Your task to perform on an android device: Search for hotels in Miami Image 0: 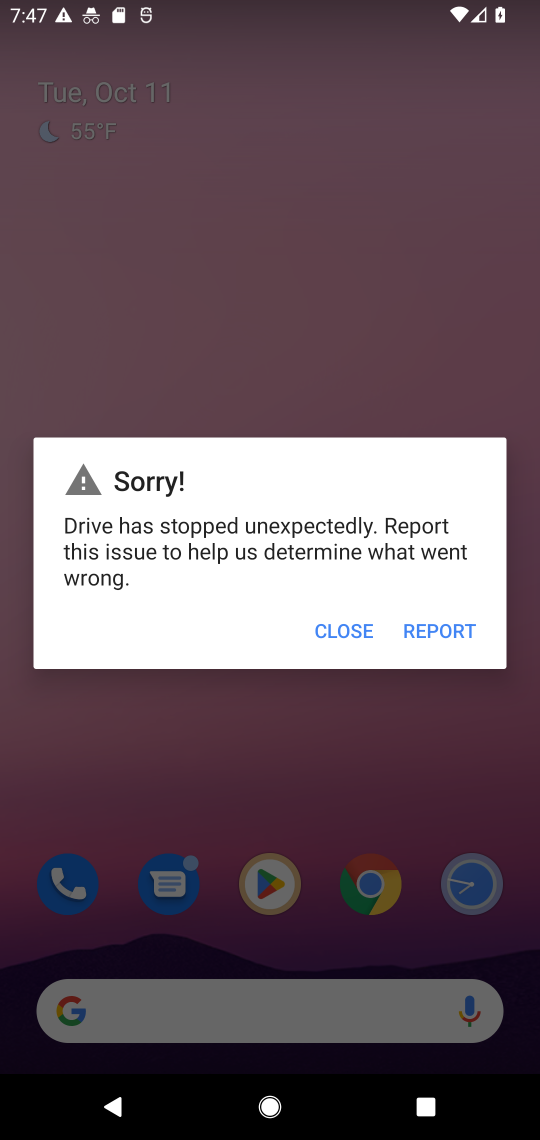
Step 0: press home button
Your task to perform on an android device: Search for hotels in Miami Image 1: 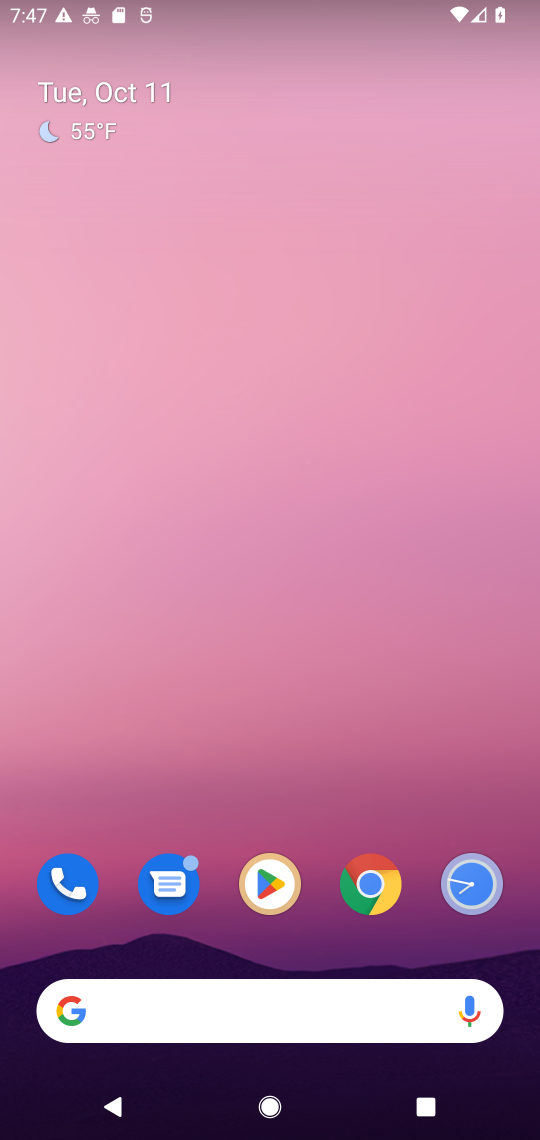
Step 1: drag from (234, 949) to (215, 11)
Your task to perform on an android device: Search for hotels in Miami Image 2: 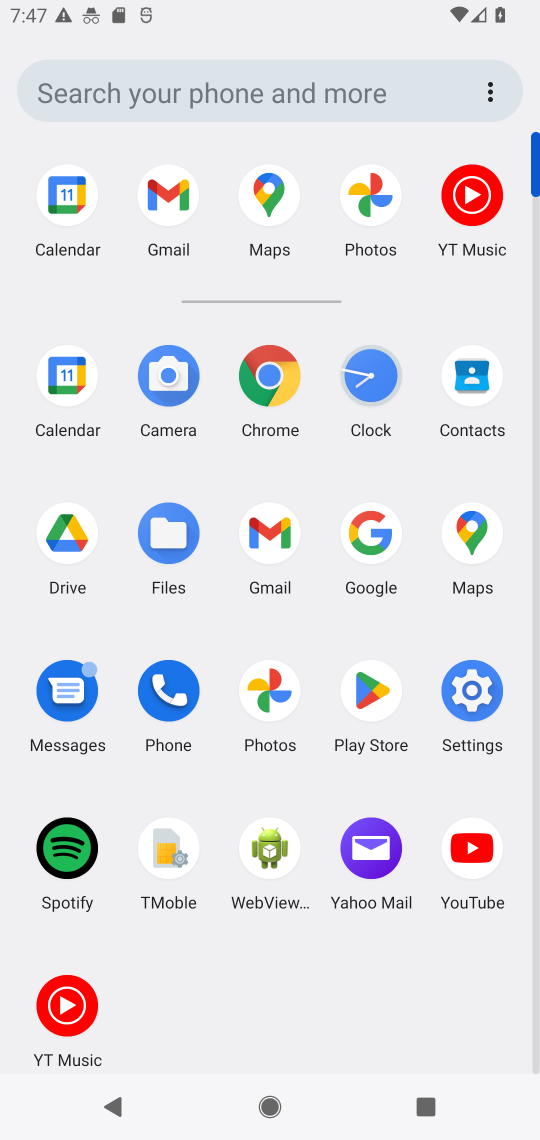
Step 2: click (274, 528)
Your task to perform on an android device: Search for hotels in Miami Image 3: 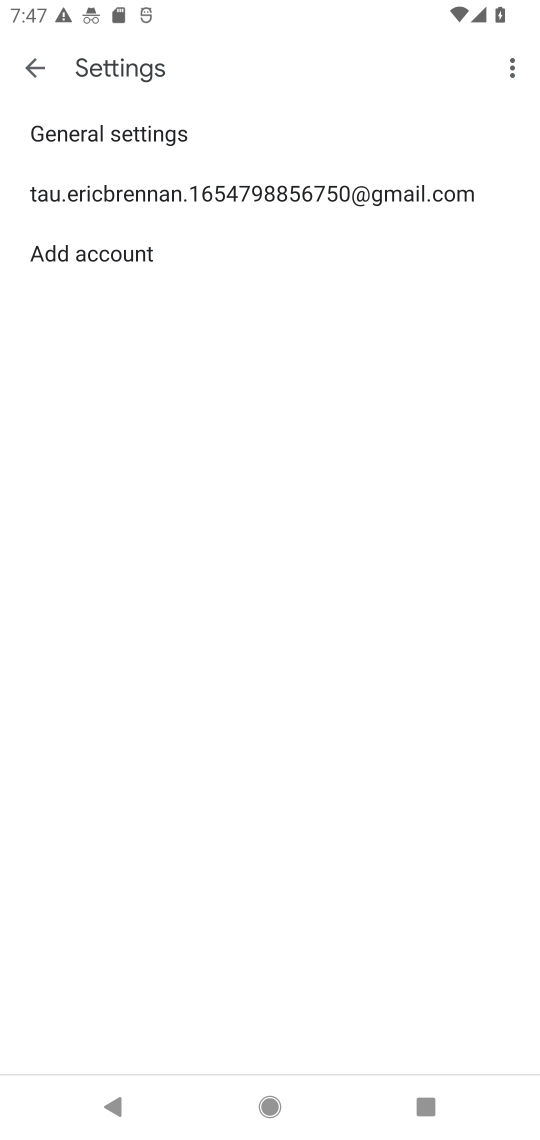
Step 3: press home button
Your task to perform on an android device: Search for hotels in Miami Image 4: 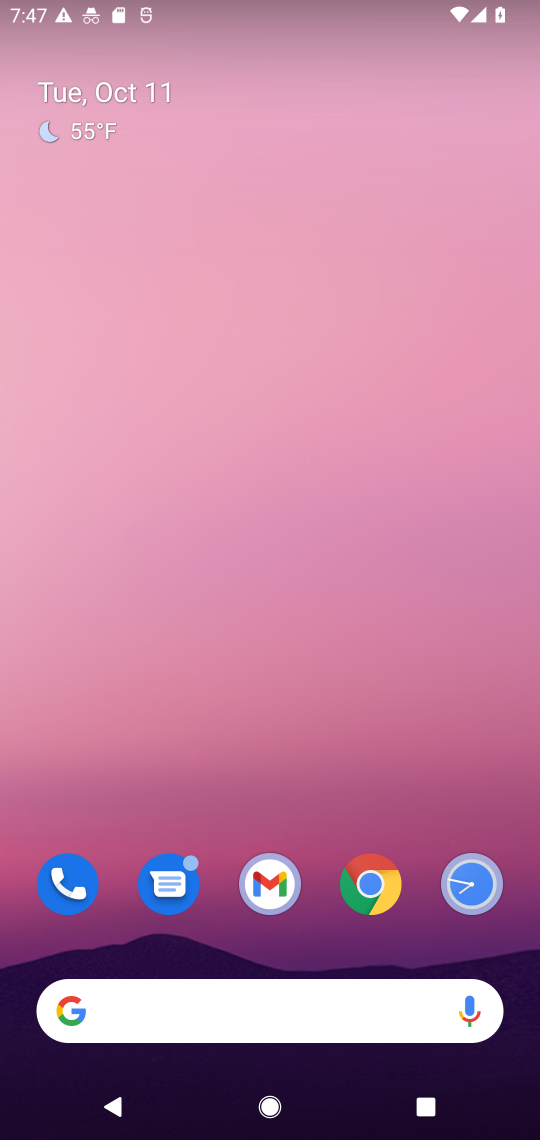
Step 4: click (371, 886)
Your task to perform on an android device: Search for hotels in Miami Image 5: 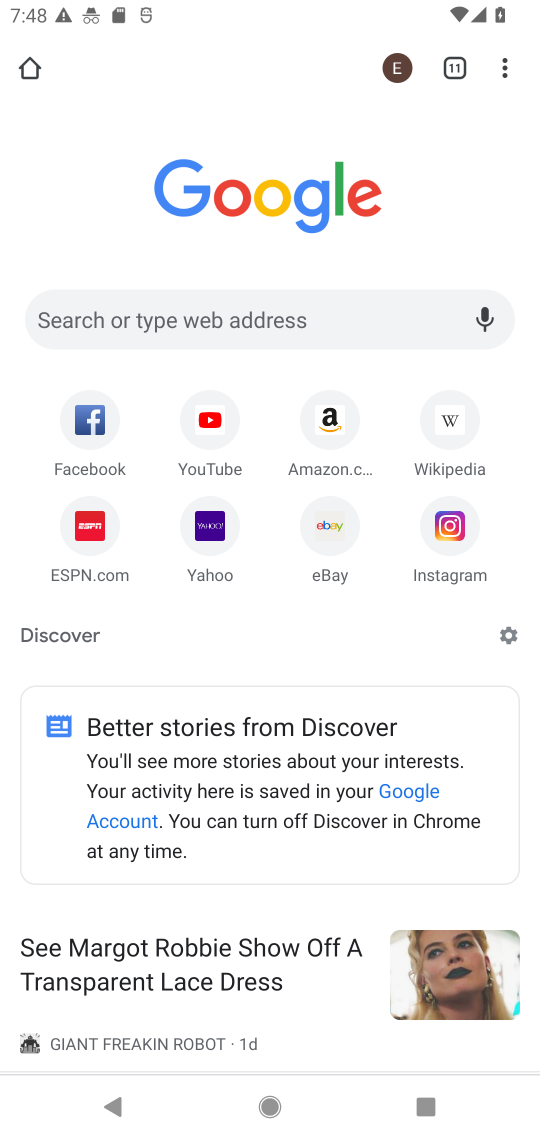
Step 5: click (236, 317)
Your task to perform on an android device: Search for hotels in Miami Image 6: 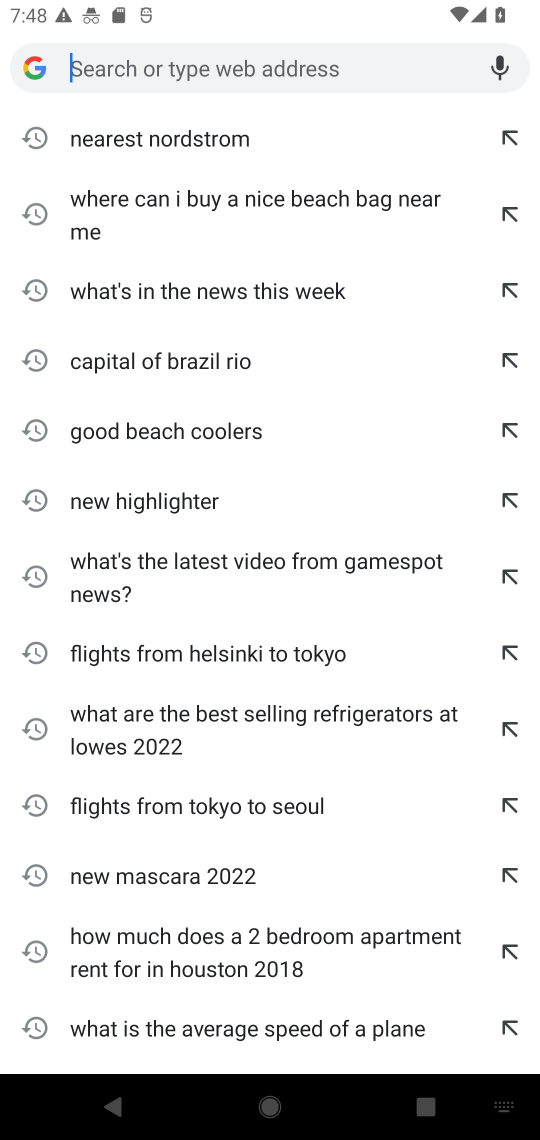
Step 6: type "hotels in Miami"
Your task to perform on an android device: Search for hotels in Miami Image 7: 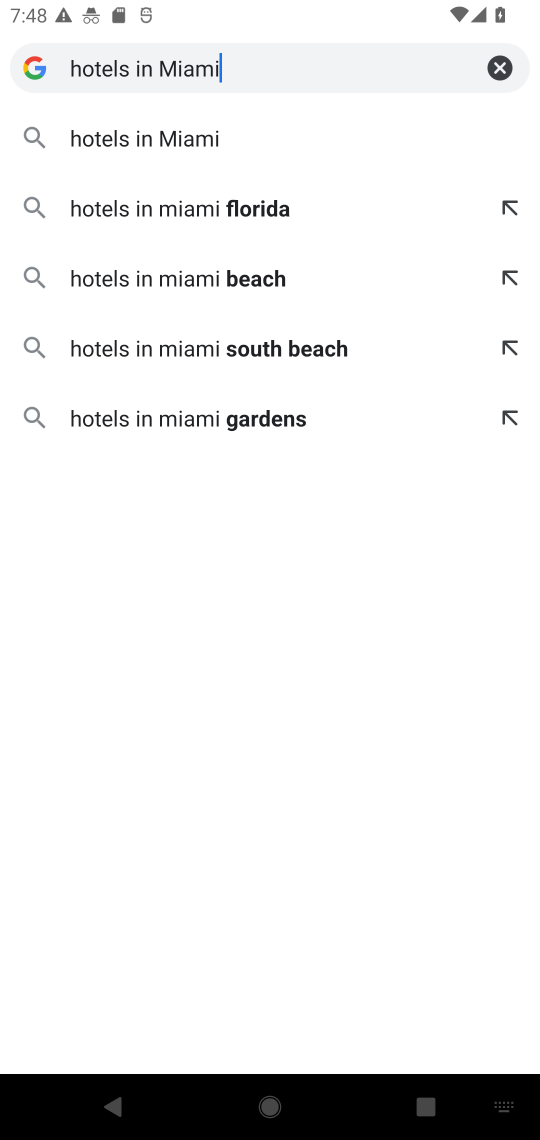
Step 7: click (196, 136)
Your task to perform on an android device: Search for hotels in Miami Image 8: 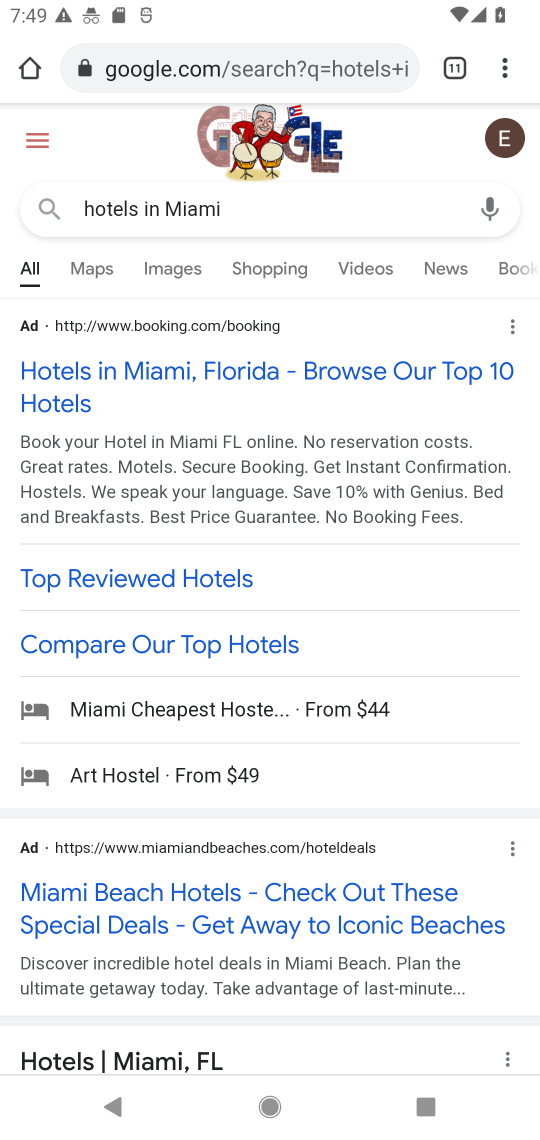
Step 8: click (155, 380)
Your task to perform on an android device: Search for hotels in Miami Image 9: 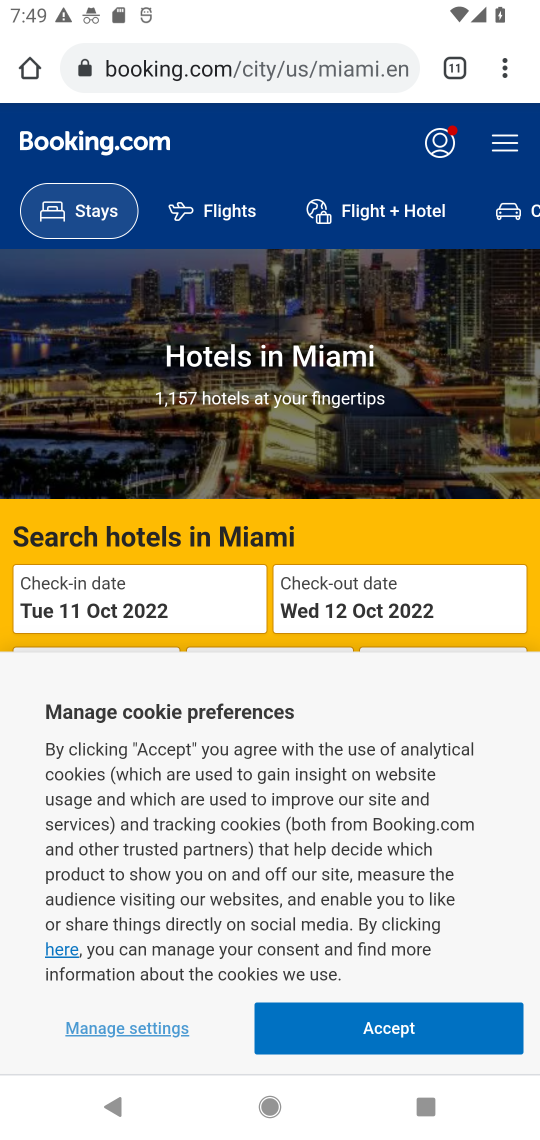
Step 9: task complete